Your task to perform on an android device: Open Google Maps and go to "Timeline" Image 0: 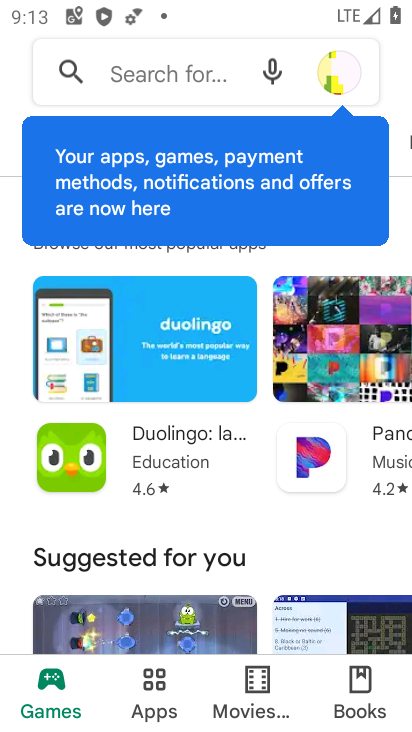
Step 0: press home button
Your task to perform on an android device: Open Google Maps and go to "Timeline" Image 1: 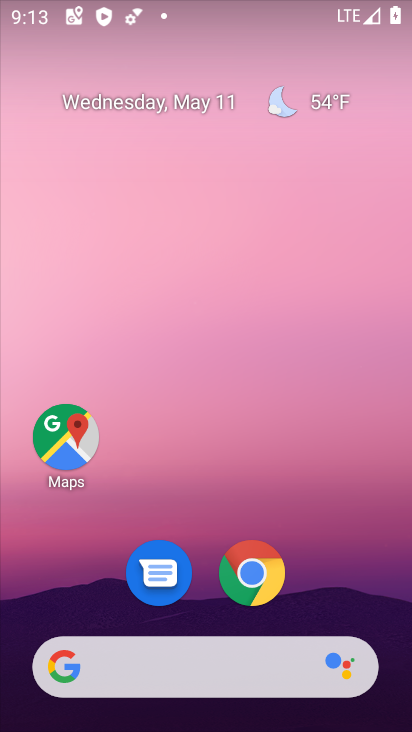
Step 1: drag from (283, 624) to (323, 51)
Your task to perform on an android device: Open Google Maps and go to "Timeline" Image 2: 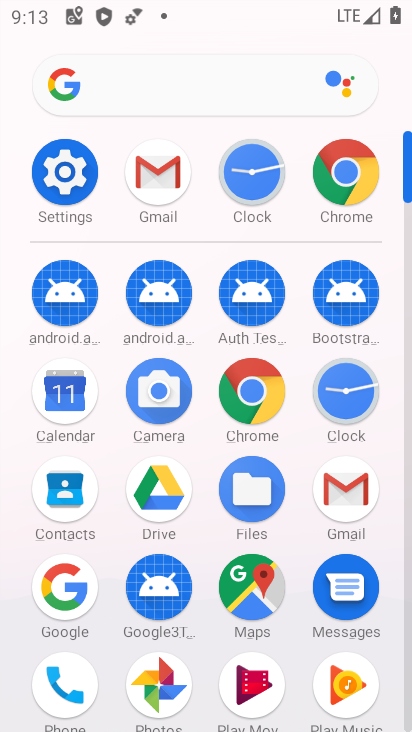
Step 2: click (272, 597)
Your task to perform on an android device: Open Google Maps and go to "Timeline" Image 3: 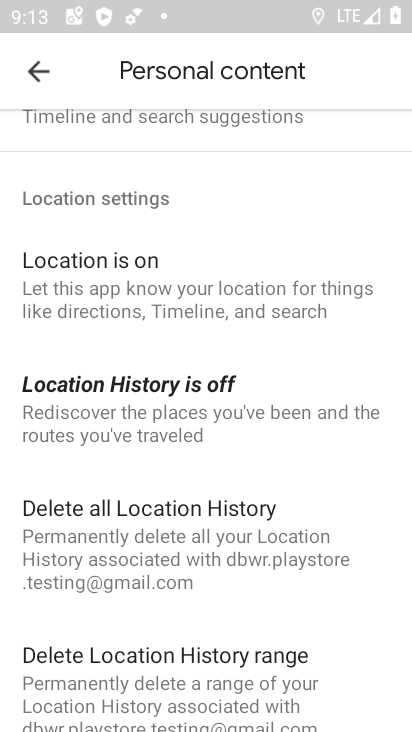
Step 3: task complete